Your task to perform on an android device: check storage Image 0: 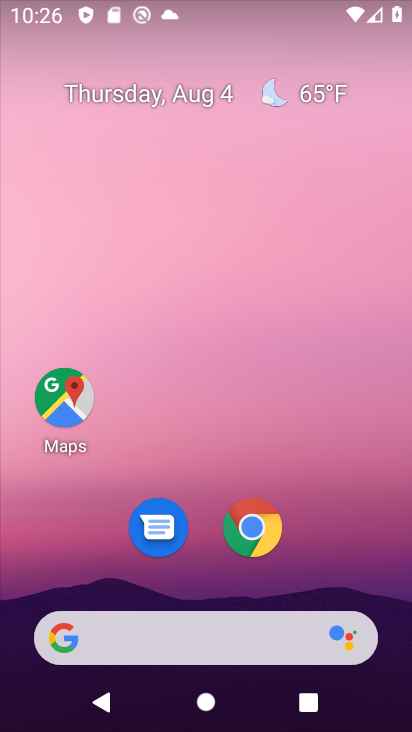
Step 0: drag from (158, 704) to (195, 291)
Your task to perform on an android device: check storage Image 1: 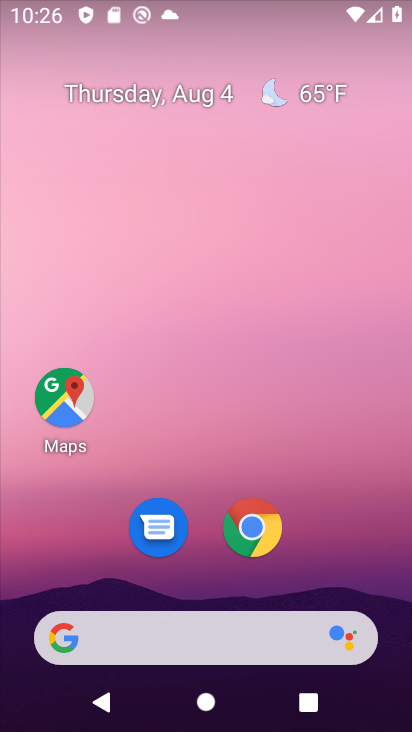
Step 1: drag from (159, 694) to (317, 8)
Your task to perform on an android device: check storage Image 2: 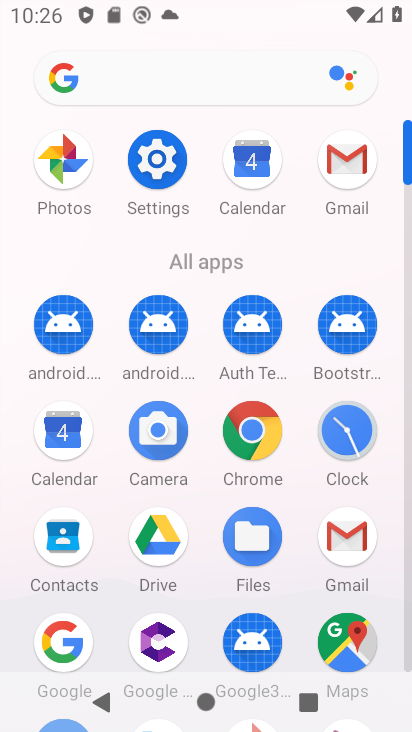
Step 2: click (154, 148)
Your task to perform on an android device: check storage Image 3: 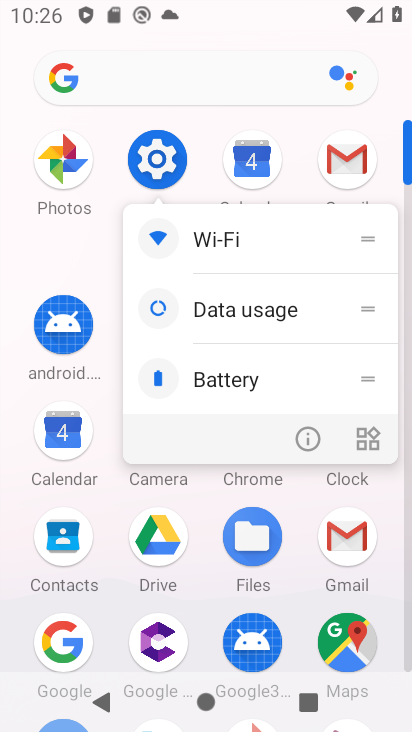
Step 3: click (154, 148)
Your task to perform on an android device: check storage Image 4: 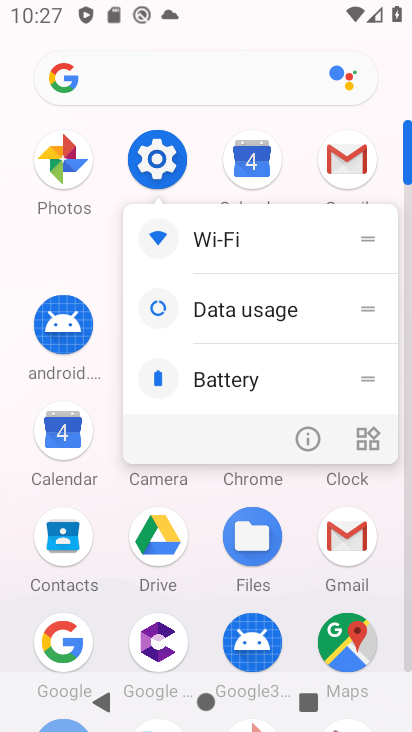
Step 4: click (174, 167)
Your task to perform on an android device: check storage Image 5: 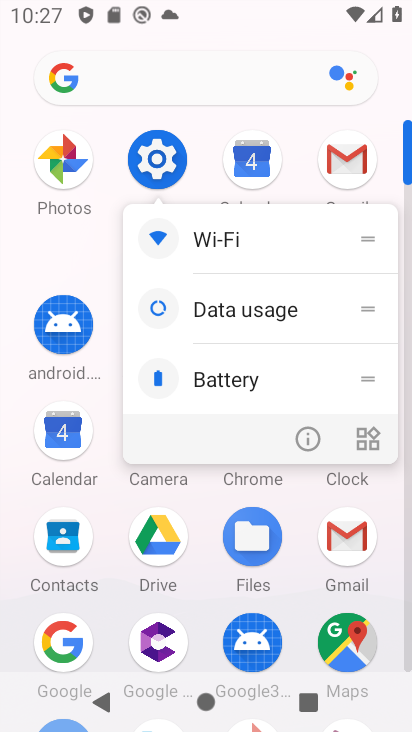
Step 5: click (174, 167)
Your task to perform on an android device: check storage Image 6: 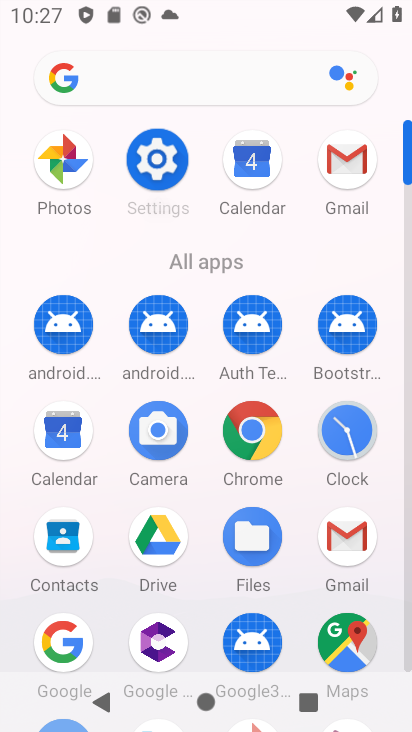
Step 6: click (174, 167)
Your task to perform on an android device: check storage Image 7: 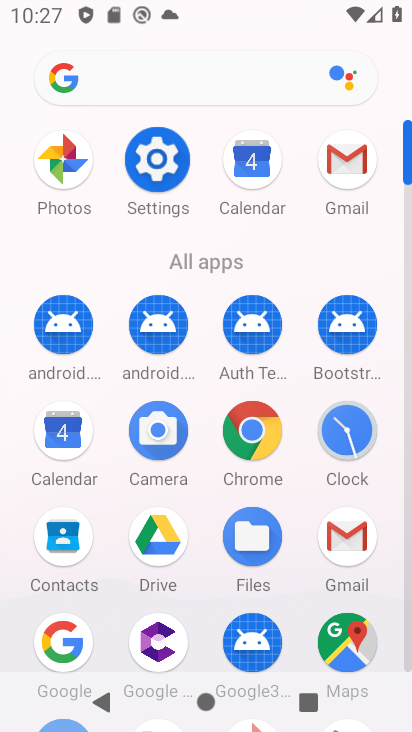
Step 7: click (174, 167)
Your task to perform on an android device: check storage Image 8: 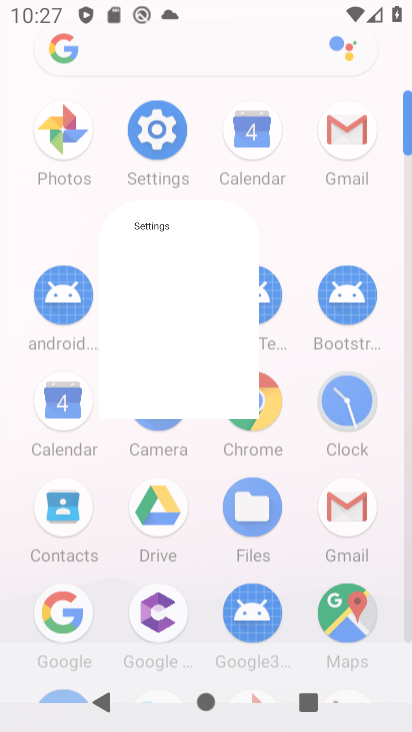
Step 8: click (174, 167)
Your task to perform on an android device: check storage Image 9: 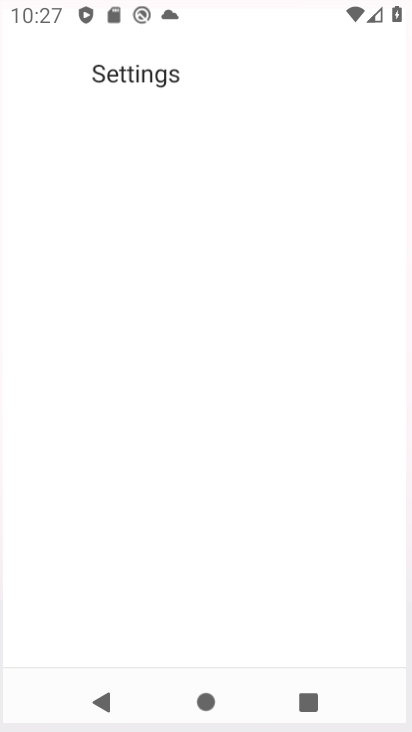
Step 9: click (174, 167)
Your task to perform on an android device: check storage Image 10: 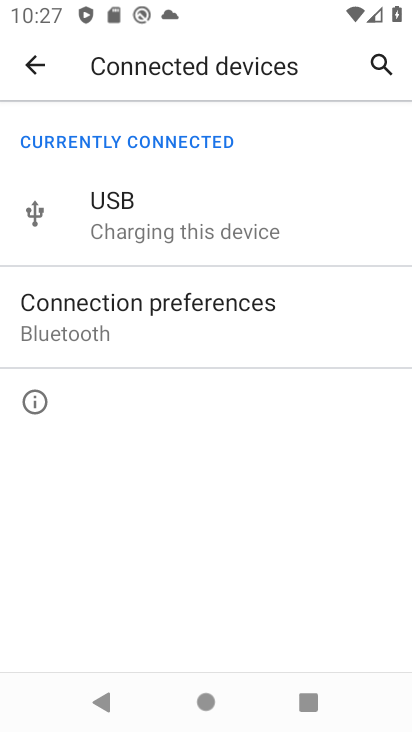
Step 10: click (31, 61)
Your task to perform on an android device: check storage Image 11: 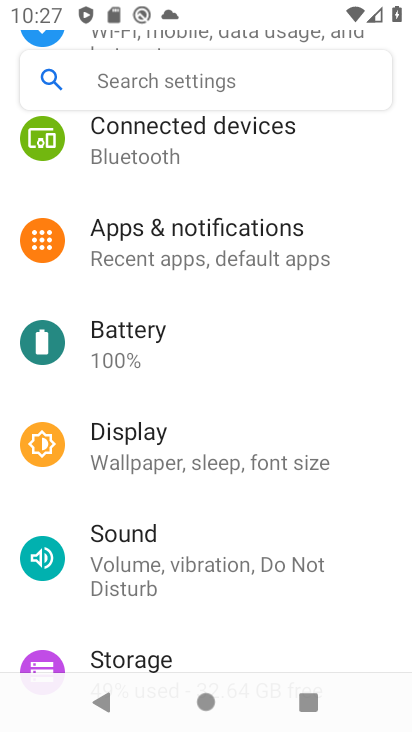
Step 11: click (155, 659)
Your task to perform on an android device: check storage Image 12: 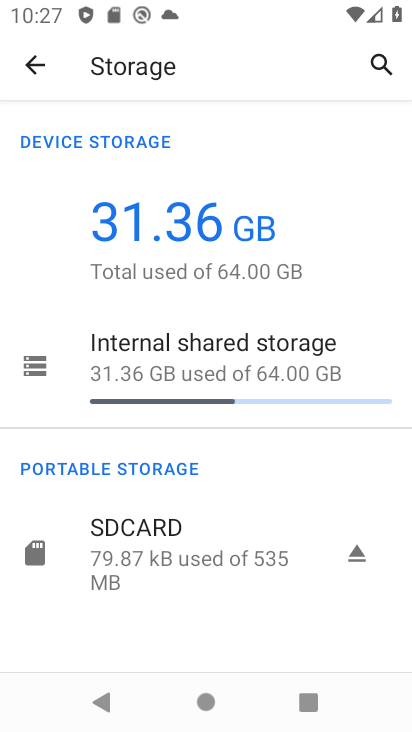
Step 12: task complete